Your task to perform on an android device: Clear all items from cart on target.com. Add "dell xps" to the cart on target.com Image 0: 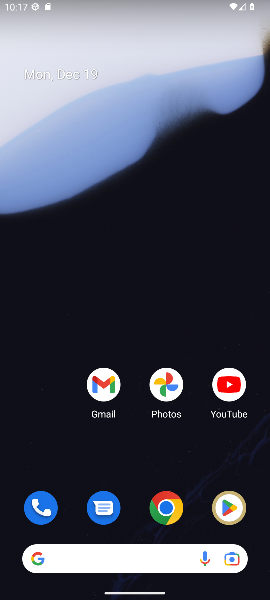
Step 0: click (171, 515)
Your task to perform on an android device: Clear all items from cart on target.com. Add "dell xps" to the cart on target.com Image 1: 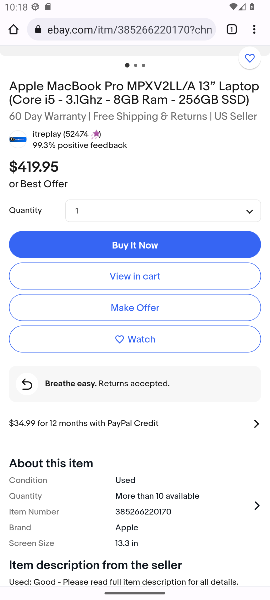
Step 1: click (233, 28)
Your task to perform on an android device: Clear all items from cart on target.com. Add "dell xps" to the cart on target.com Image 2: 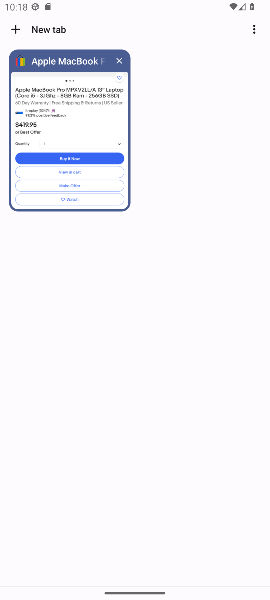
Step 2: click (13, 25)
Your task to perform on an android device: Clear all items from cart on target.com. Add "dell xps" to the cart on target.com Image 3: 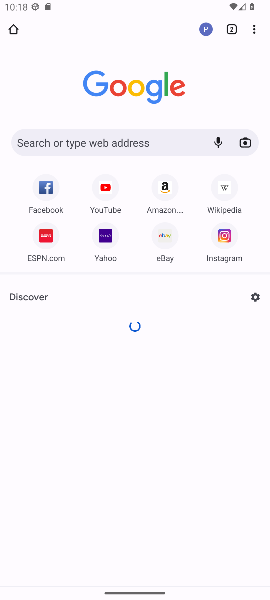
Step 3: click (133, 144)
Your task to perform on an android device: Clear all items from cart on target.com. Add "dell xps" to the cart on target.com Image 4: 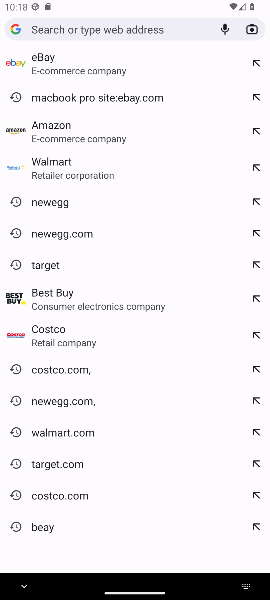
Step 4: click (35, 265)
Your task to perform on an android device: Clear all items from cart on target.com. Add "dell xps" to the cart on target.com Image 5: 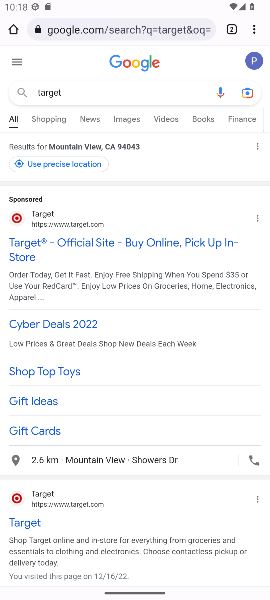
Step 5: click (129, 245)
Your task to perform on an android device: Clear all items from cart on target.com. Add "dell xps" to the cart on target.com Image 6: 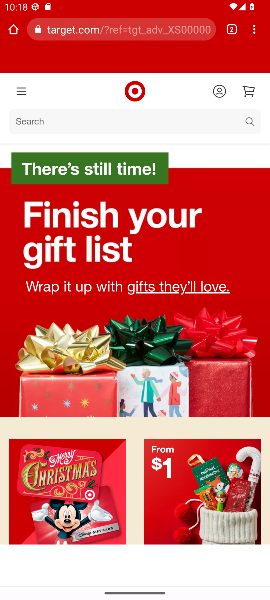
Step 6: click (63, 123)
Your task to perform on an android device: Clear all items from cart on target.com. Add "dell xps" to the cart on target.com Image 7: 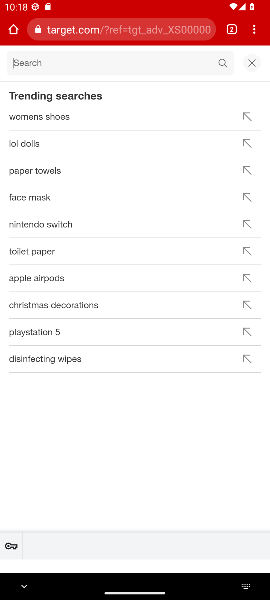
Step 7: type "dell xps"
Your task to perform on an android device: Clear all items from cart on target.com. Add "dell xps" to the cart on target.com Image 8: 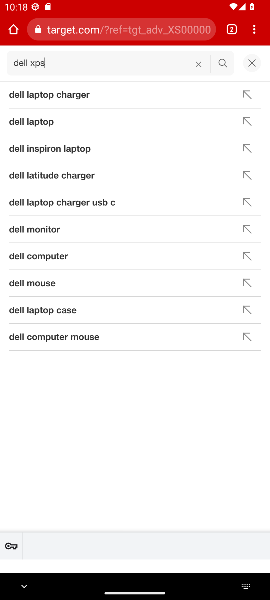
Step 8: click (221, 63)
Your task to perform on an android device: Clear all items from cart on target.com. Add "dell xps" to the cart on target.com Image 9: 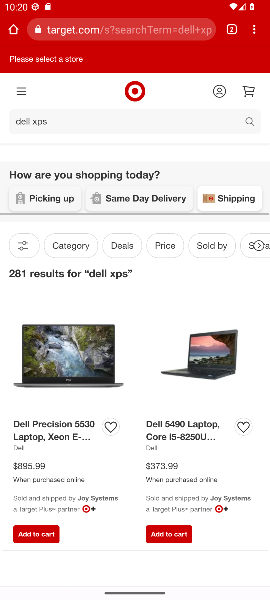
Step 9: task complete